Your task to perform on an android device: find which apps use the phone's location Image 0: 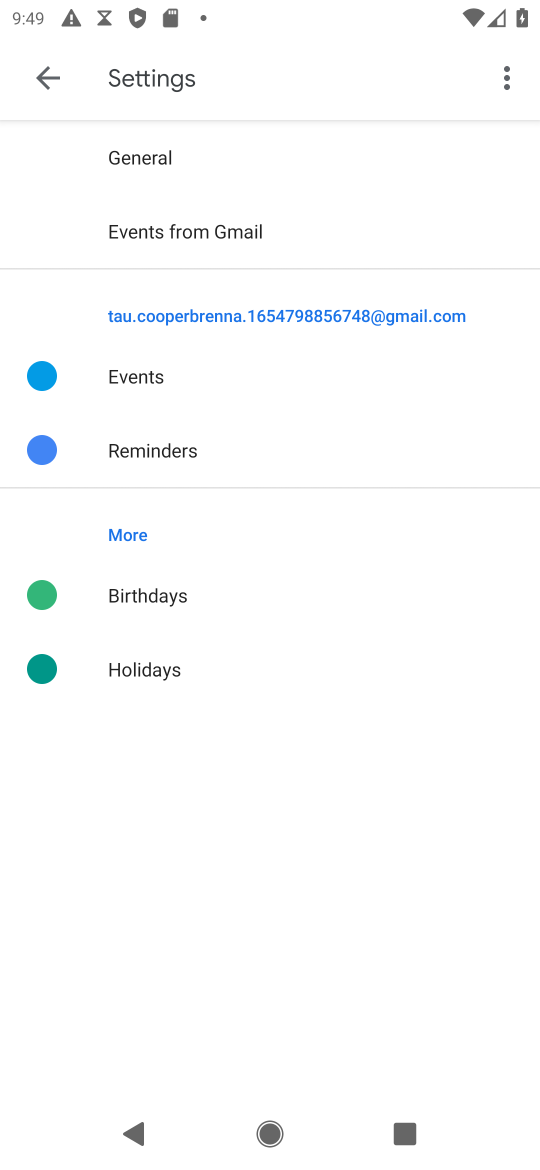
Step 0: press home button
Your task to perform on an android device: find which apps use the phone's location Image 1: 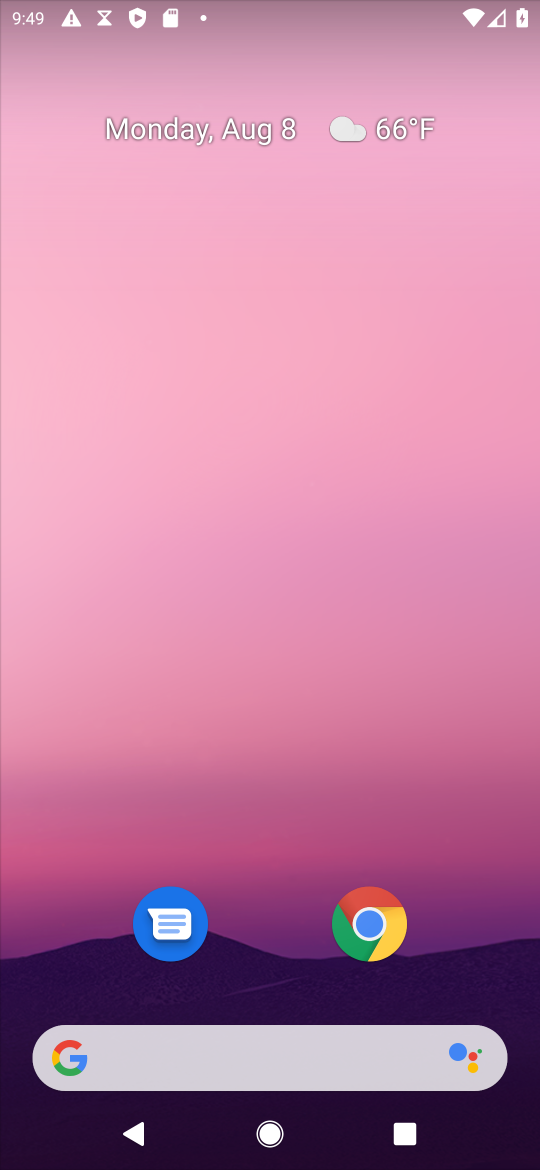
Step 1: drag from (242, 943) to (270, 113)
Your task to perform on an android device: find which apps use the phone's location Image 2: 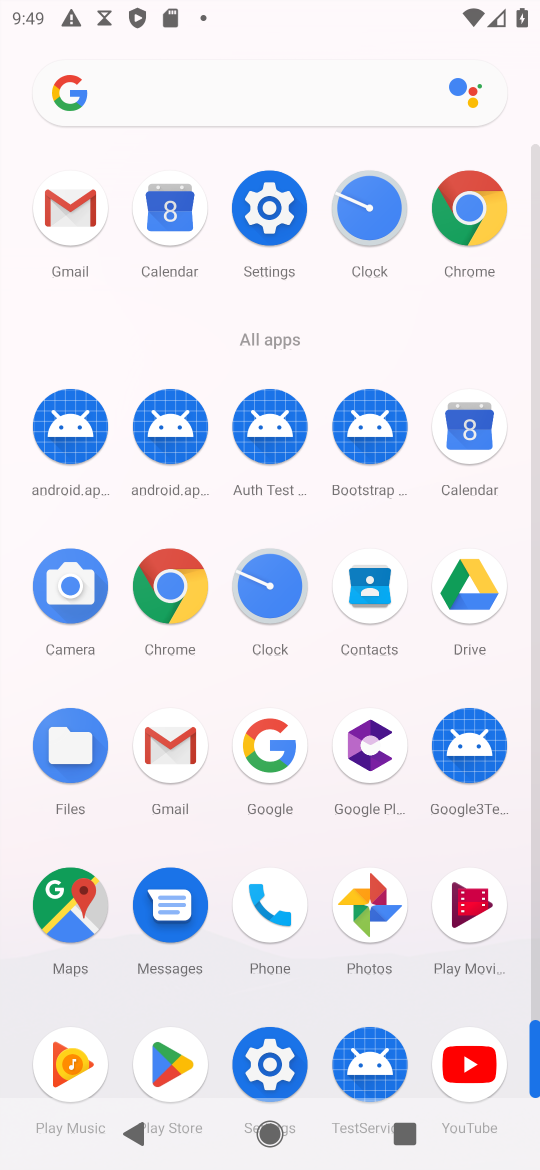
Step 2: click (256, 1056)
Your task to perform on an android device: find which apps use the phone's location Image 3: 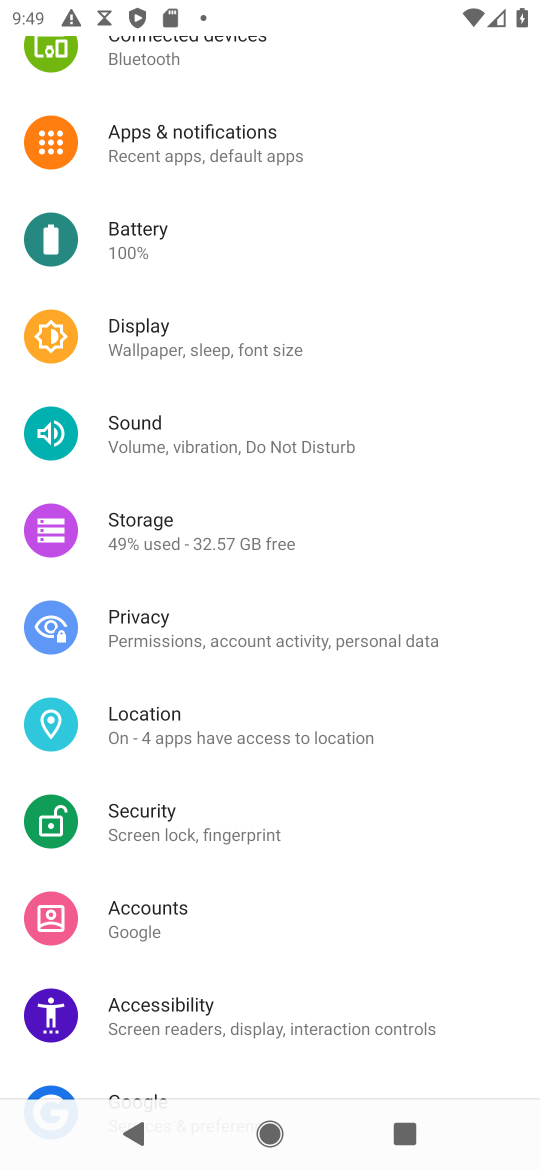
Step 3: click (140, 735)
Your task to perform on an android device: find which apps use the phone's location Image 4: 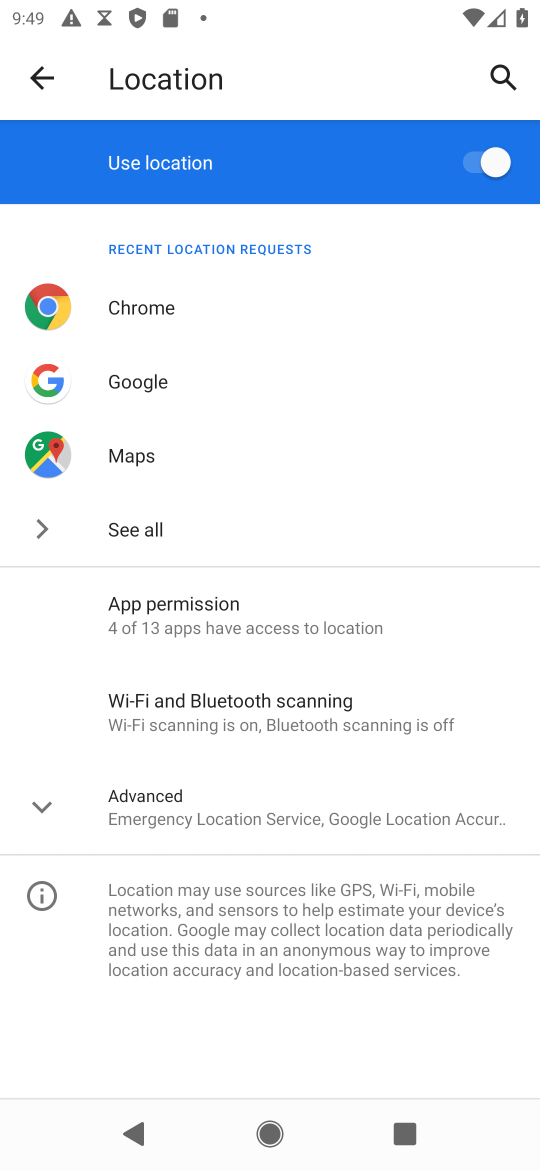
Step 4: press home button
Your task to perform on an android device: find which apps use the phone's location Image 5: 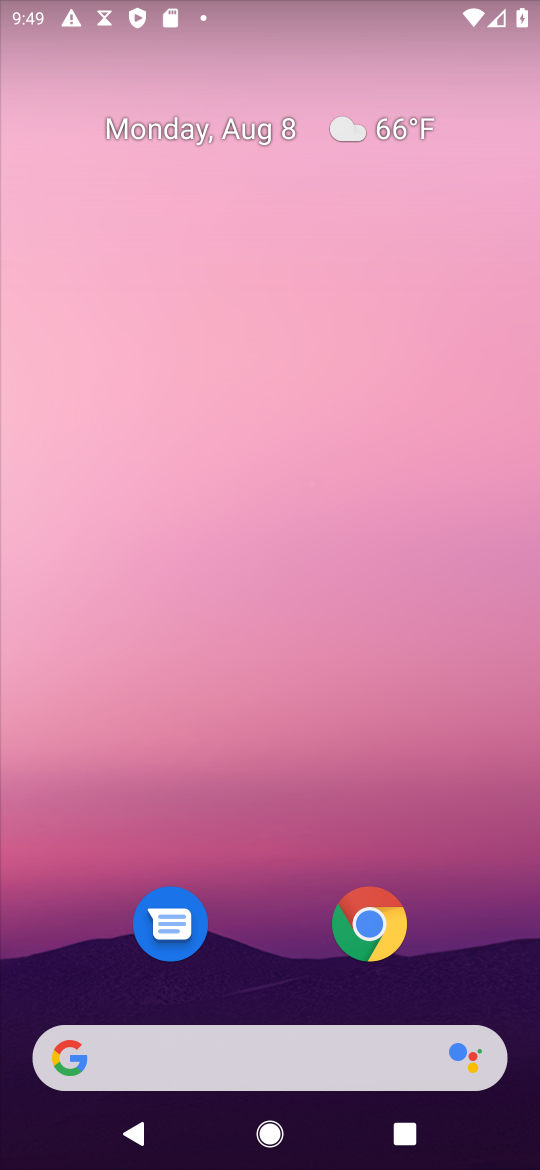
Step 5: drag from (263, 974) to (286, 274)
Your task to perform on an android device: find which apps use the phone's location Image 6: 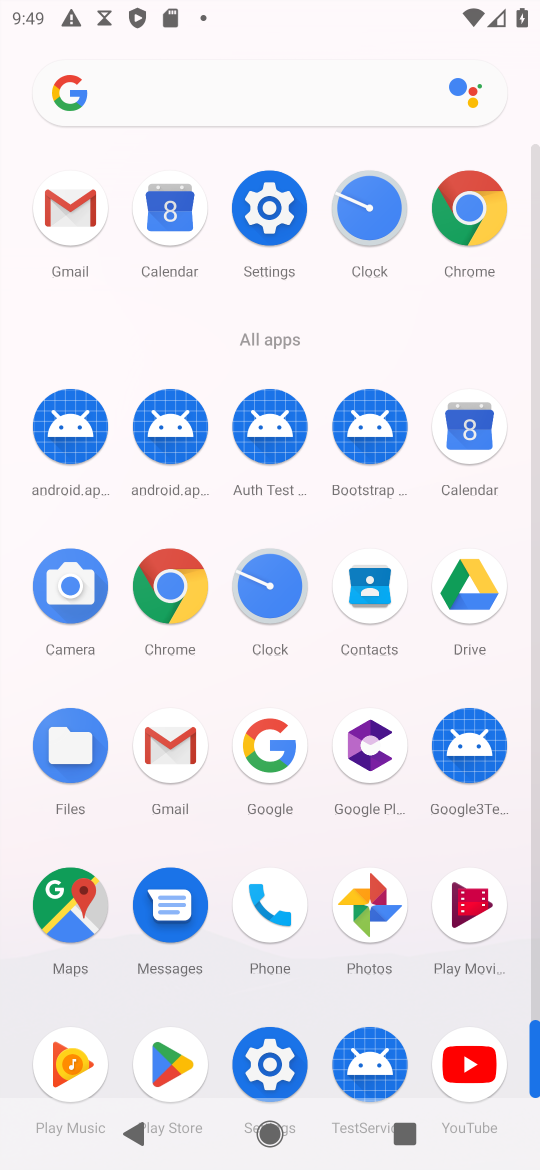
Step 6: click (278, 907)
Your task to perform on an android device: find which apps use the phone's location Image 7: 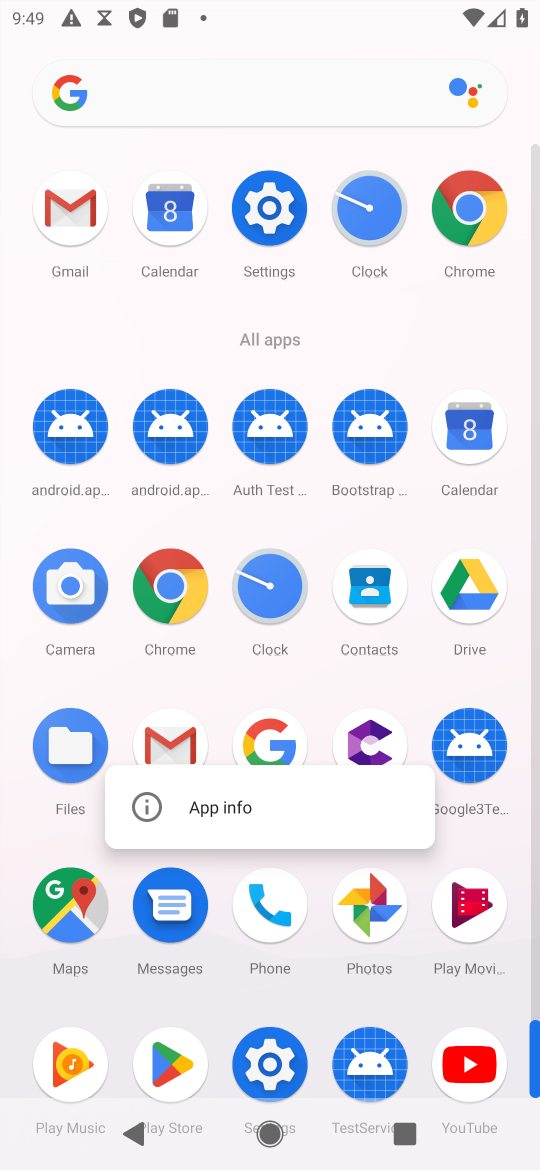
Step 7: click (232, 800)
Your task to perform on an android device: find which apps use the phone's location Image 8: 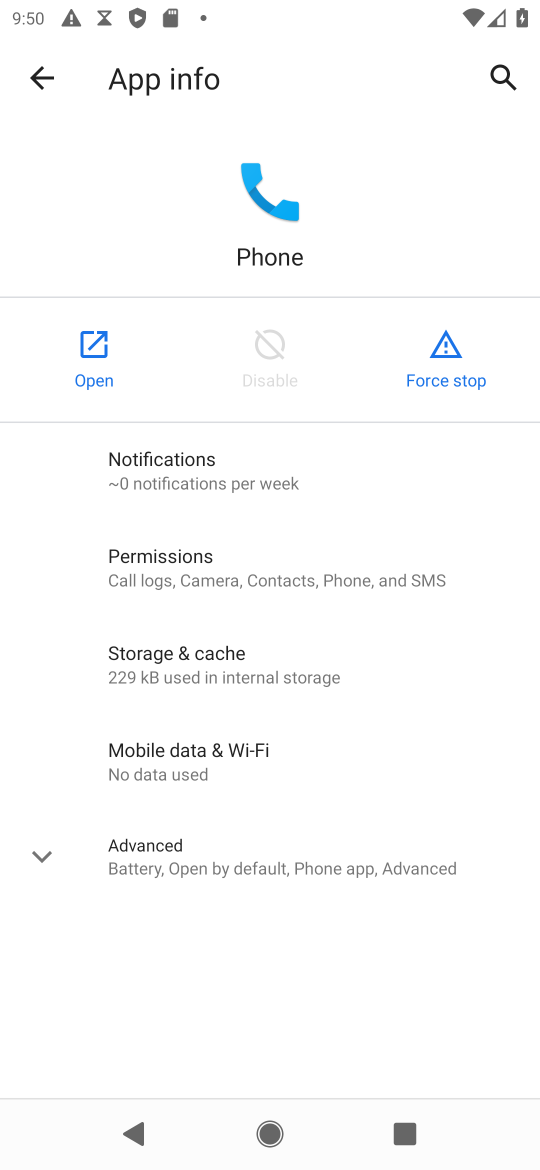
Step 8: click (166, 571)
Your task to perform on an android device: find which apps use the phone's location Image 9: 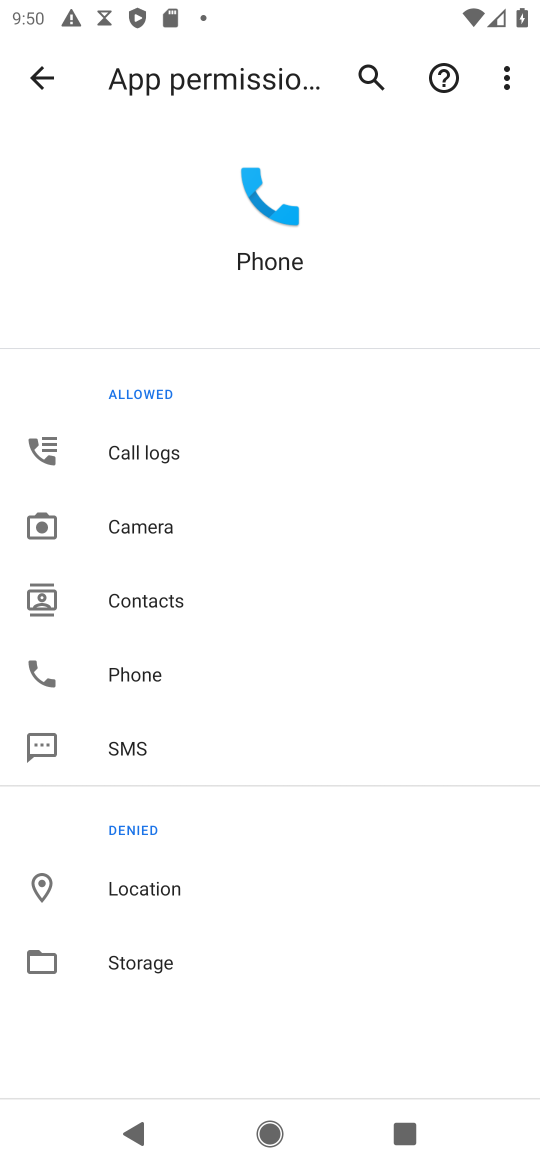
Step 9: click (145, 884)
Your task to perform on an android device: find which apps use the phone's location Image 10: 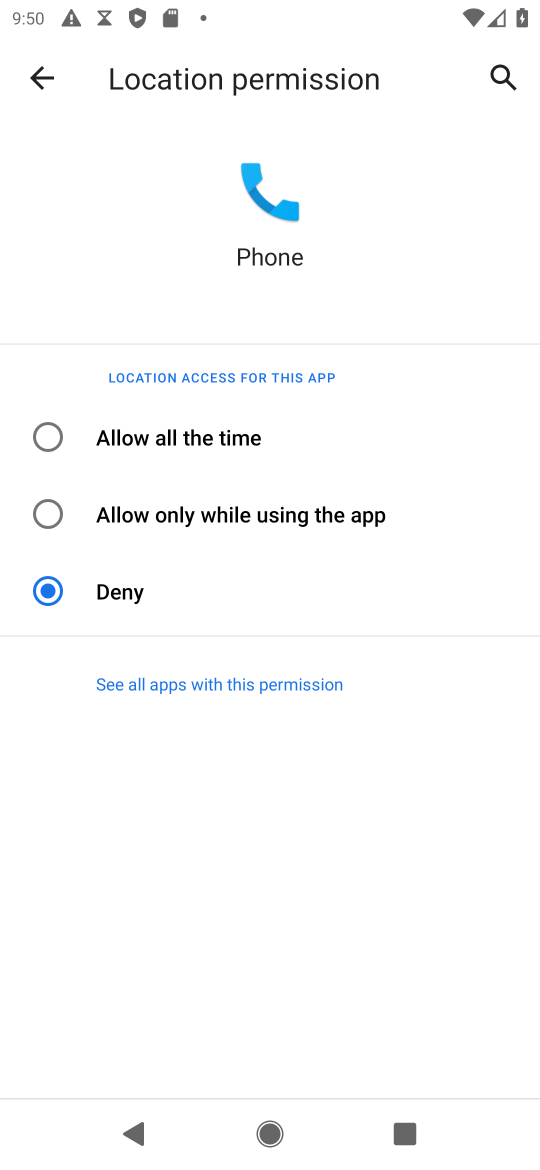
Step 10: task complete